Your task to perform on an android device: Empty the shopping cart on ebay.com. Add "razer huntsman" to the cart on ebay.com, then select checkout. Image 0: 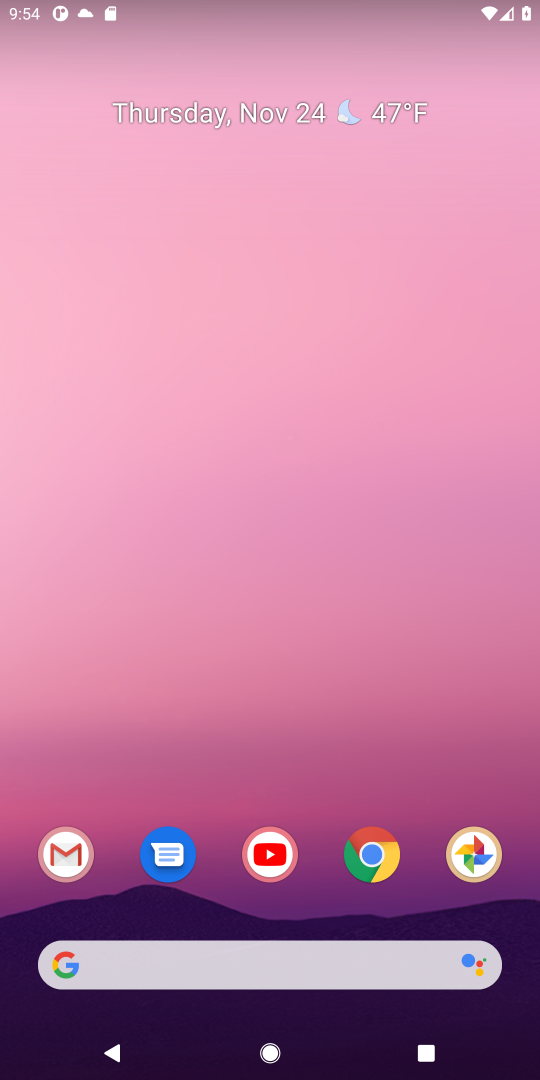
Step 0: click (378, 859)
Your task to perform on an android device: Empty the shopping cart on ebay.com. Add "razer huntsman" to the cart on ebay.com, then select checkout. Image 1: 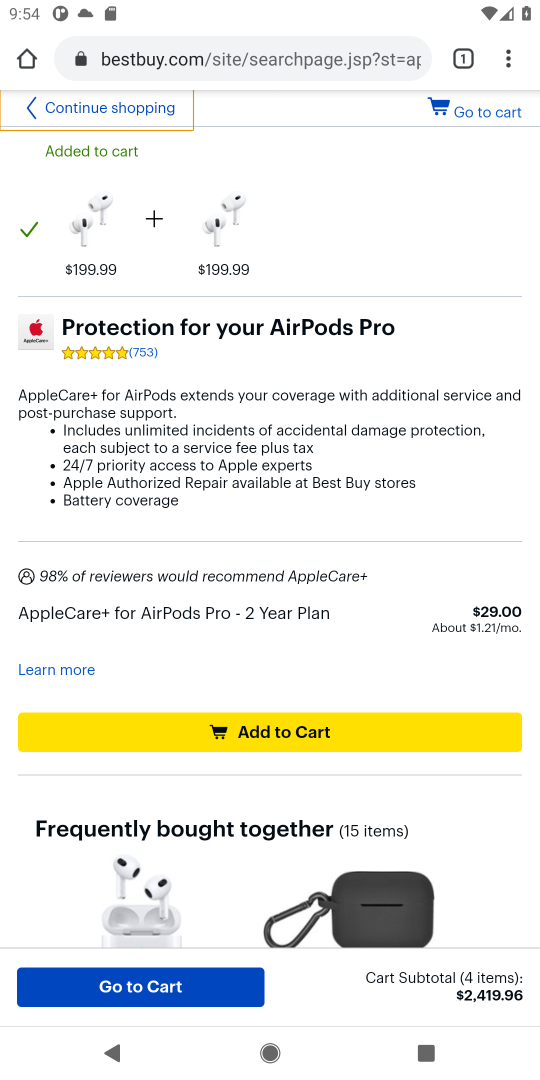
Step 1: click (196, 55)
Your task to perform on an android device: Empty the shopping cart on ebay.com. Add "razer huntsman" to the cart on ebay.com, then select checkout. Image 2: 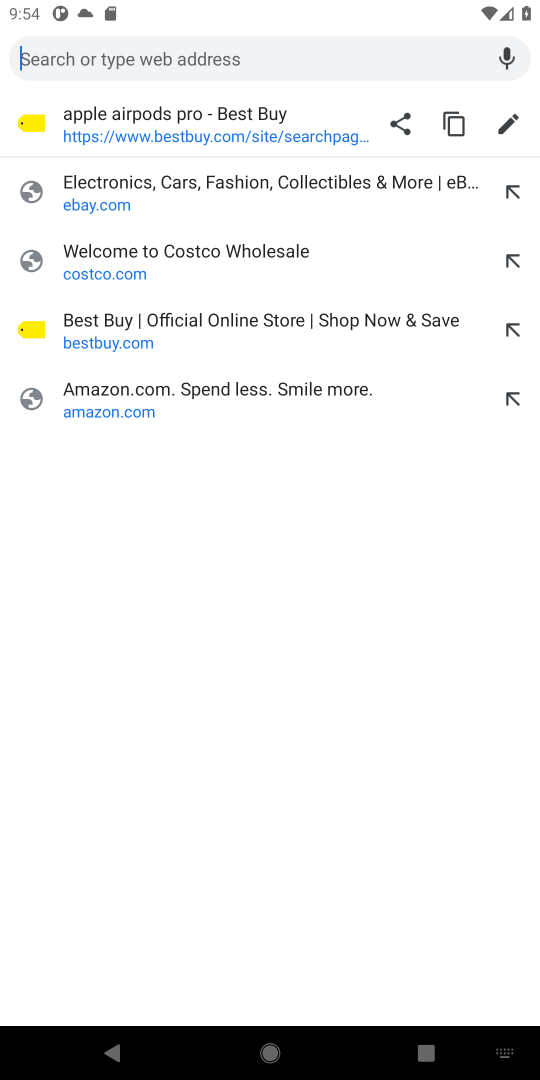
Step 2: click (89, 192)
Your task to perform on an android device: Empty the shopping cart on ebay.com. Add "razer huntsman" to the cart on ebay.com, then select checkout. Image 3: 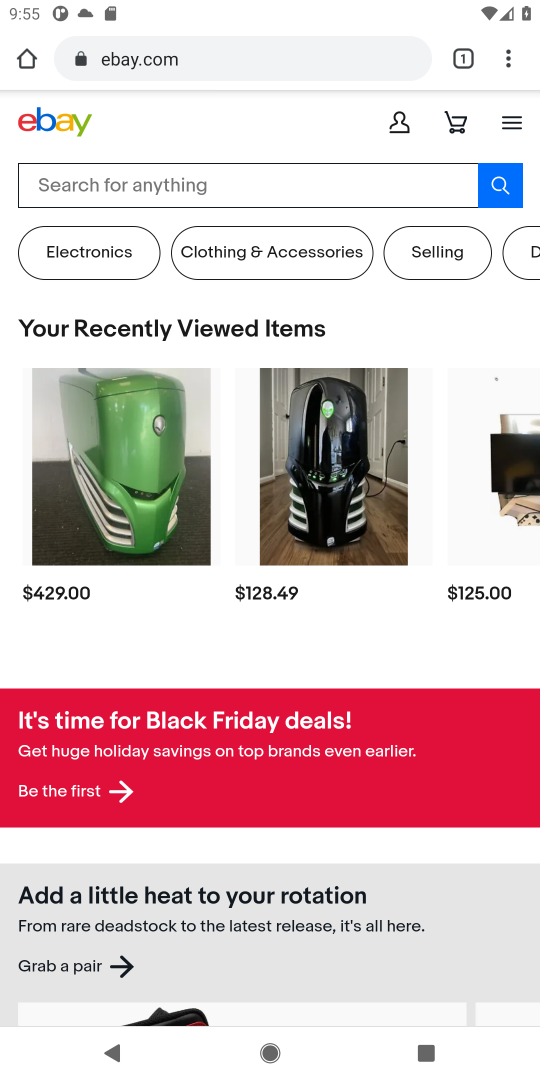
Step 3: click (456, 127)
Your task to perform on an android device: Empty the shopping cart on ebay.com. Add "razer huntsman" to the cart on ebay.com, then select checkout. Image 4: 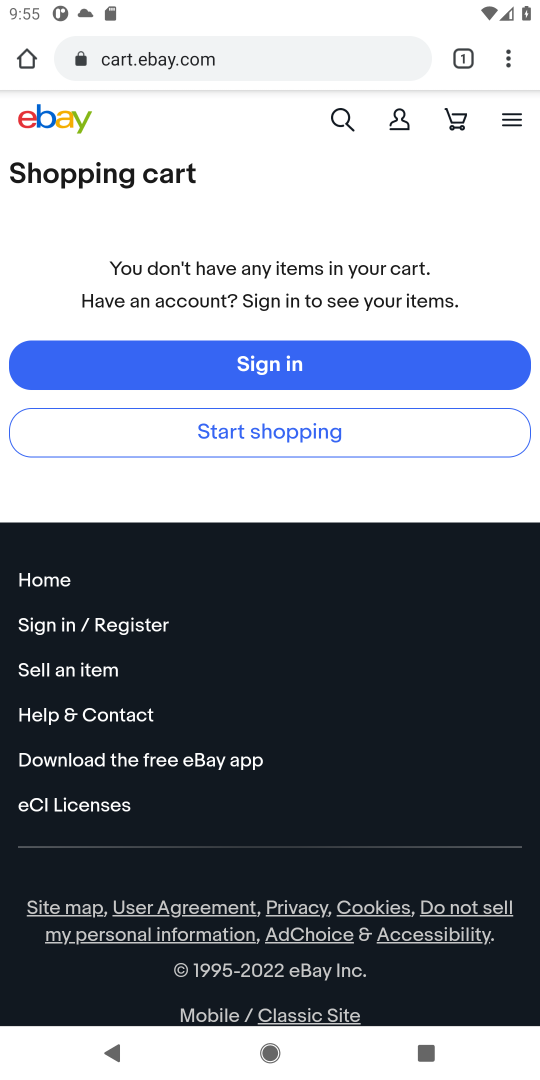
Step 4: click (341, 121)
Your task to perform on an android device: Empty the shopping cart on ebay.com. Add "razer huntsman" to the cart on ebay.com, then select checkout. Image 5: 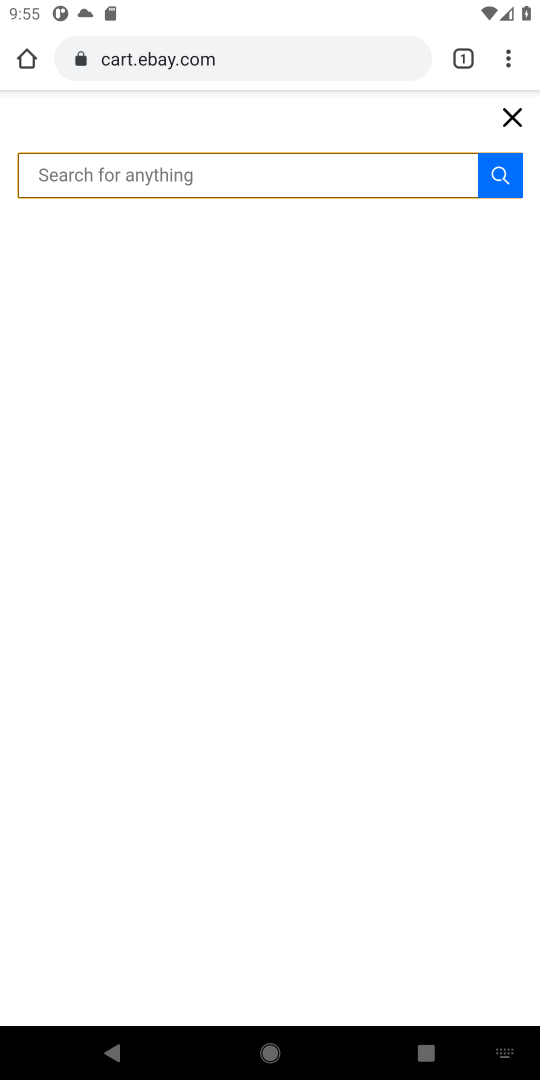
Step 5: type "razer huntsman"
Your task to perform on an android device: Empty the shopping cart on ebay.com. Add "razer huntsman" to the cart on ebay.com, then select checkout. Image 6: 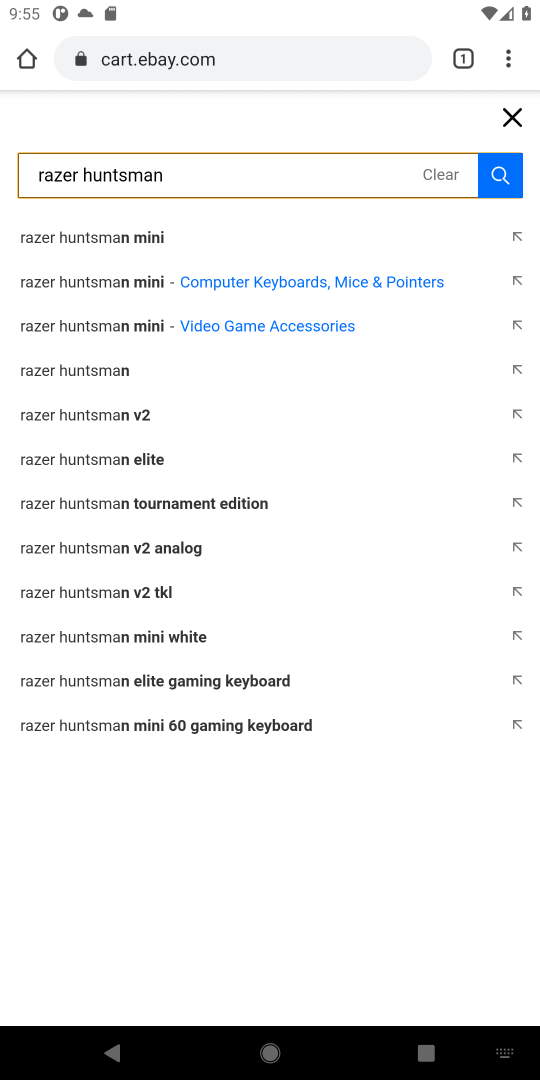
Step 6: click (492, 179)
Your task to perform on an android device: Empty the shopping cart on ebay.com. Add "razer huntsman" to the cart on ebay.com, then select checkout. Image 7: 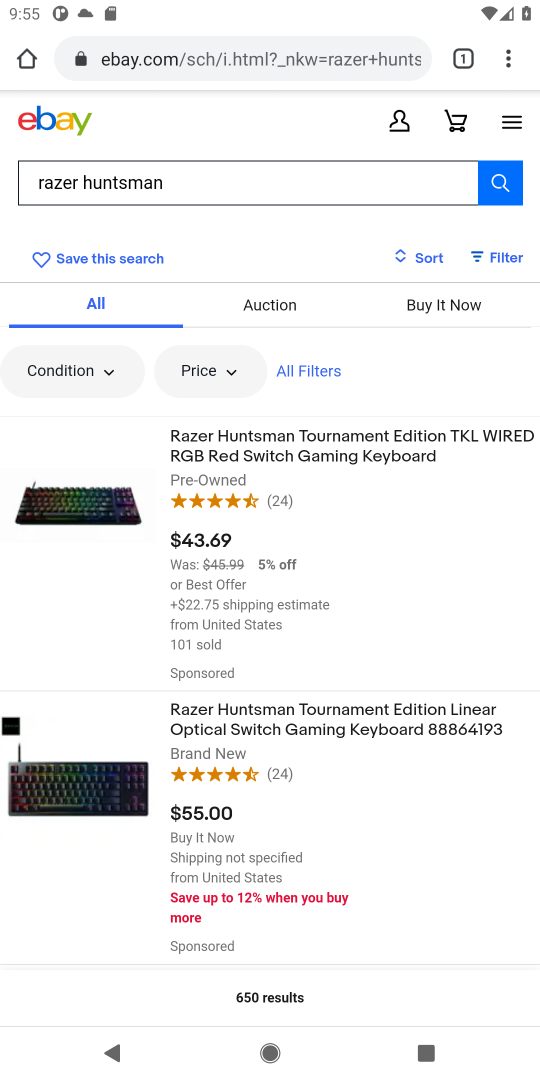
Step 7: click (68, 512)
Your task to perform on an android device: Empty the shopping cart on ebay.com. Add "razer huntsman" to the cart on ebay.com, then select checkout. Image 8: 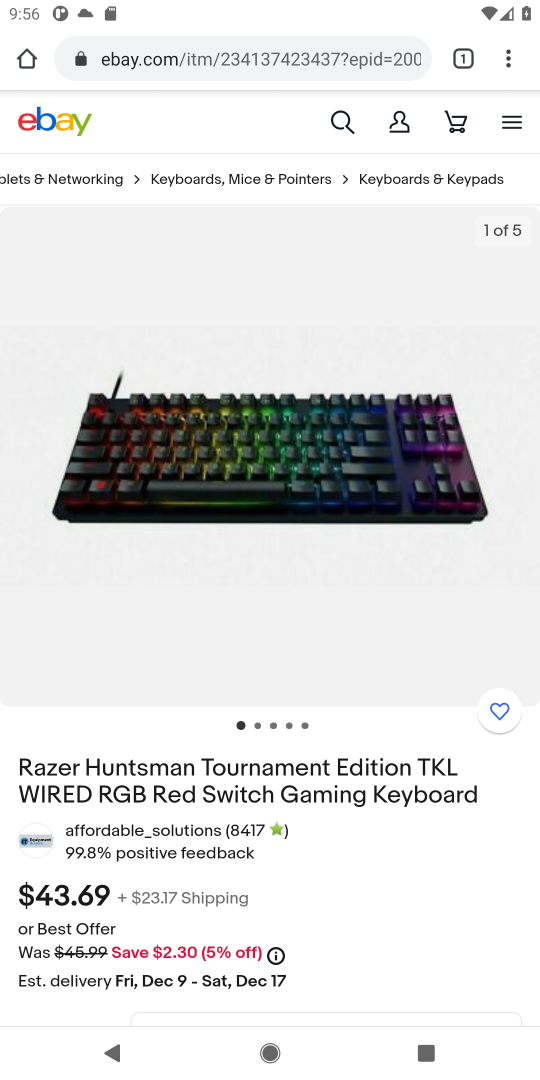
Step 8: drag from (178, 765) to (178, 503)
Your task to perform on an android device: Empty the shopping cart on ebay.com. Add "razer huntsman" to the cart on ebay.com, then select checkout. Image 9: 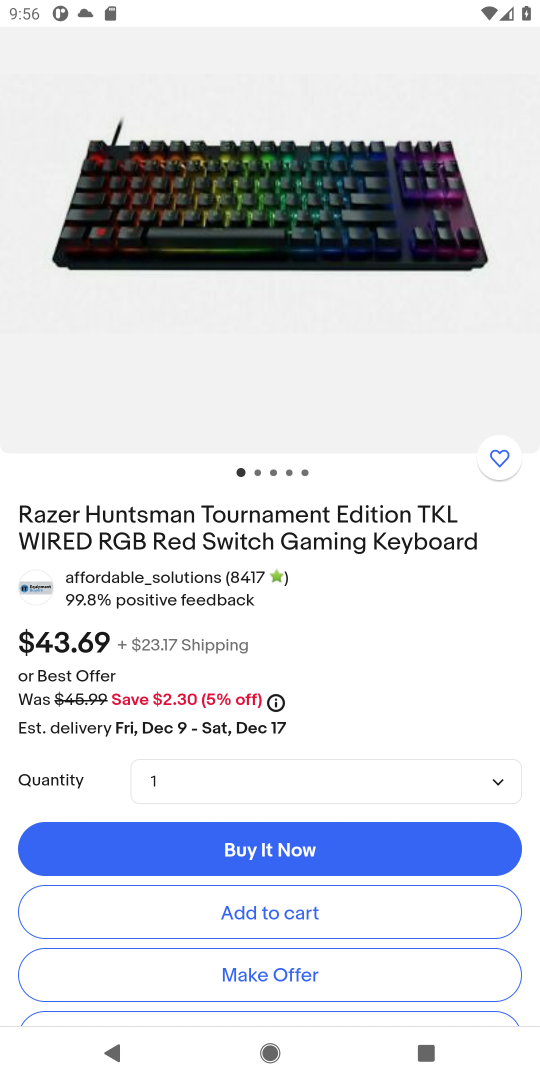
Step 9: click (251, 907)
Your task to perform on an android device: Empty the shopping cart on ebay.com. Add "razer huntsman" to the cart on ebay.com, then select checkout. Image 10: 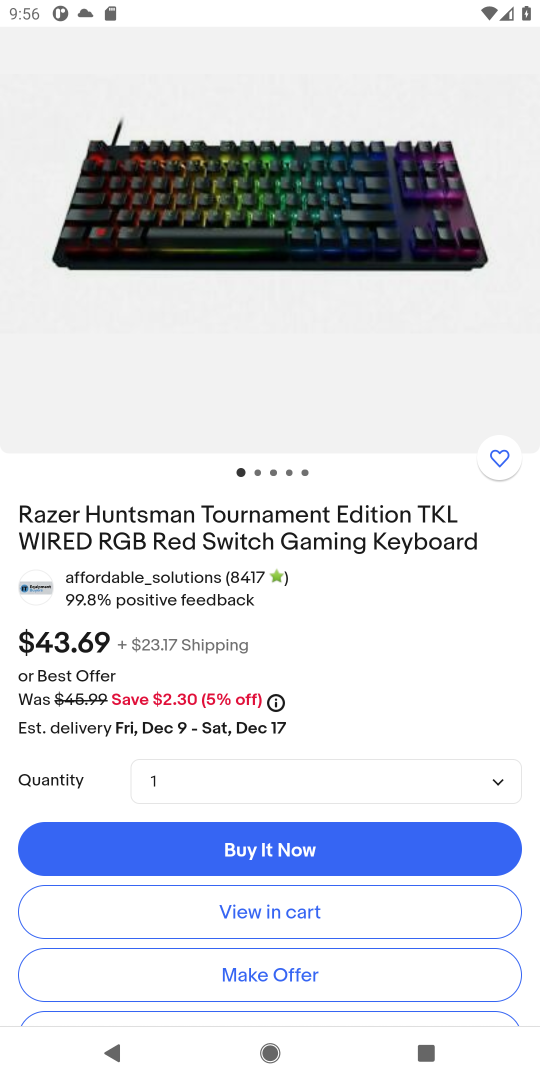
Step 10: click (251, 907)
Your task to perform on an android device: Empty the shopping cart on ebay.com. Add "razer huntsman" to the cart on ebay.com, then select checkout. Image 11: 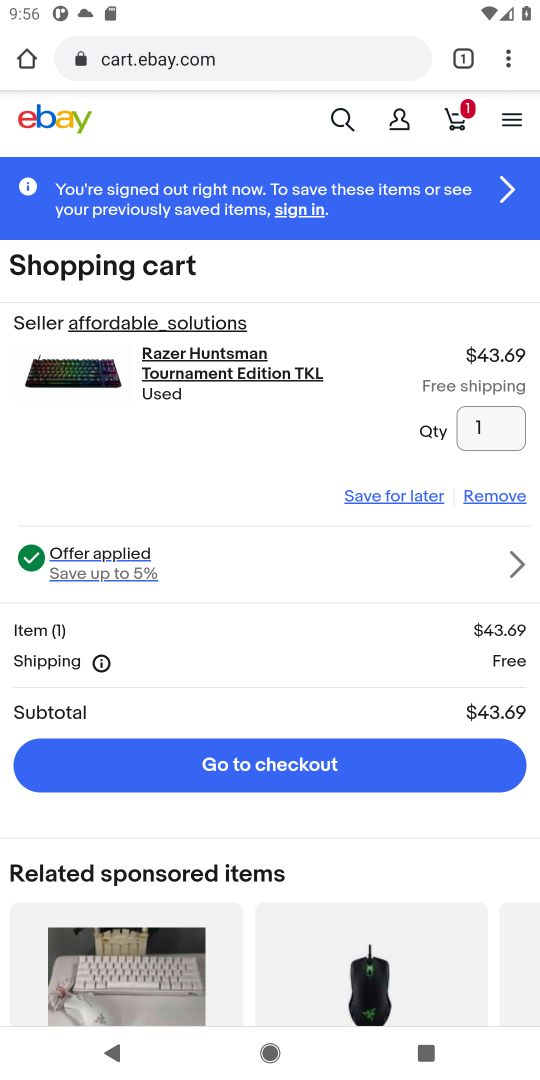
Step 11: click (236, 764)
Your task to perform on an android device: Empty the shopping cart on ebay.com. Add "razer huntsman" to the cart on ebay.com, then select checkout. Image 12: 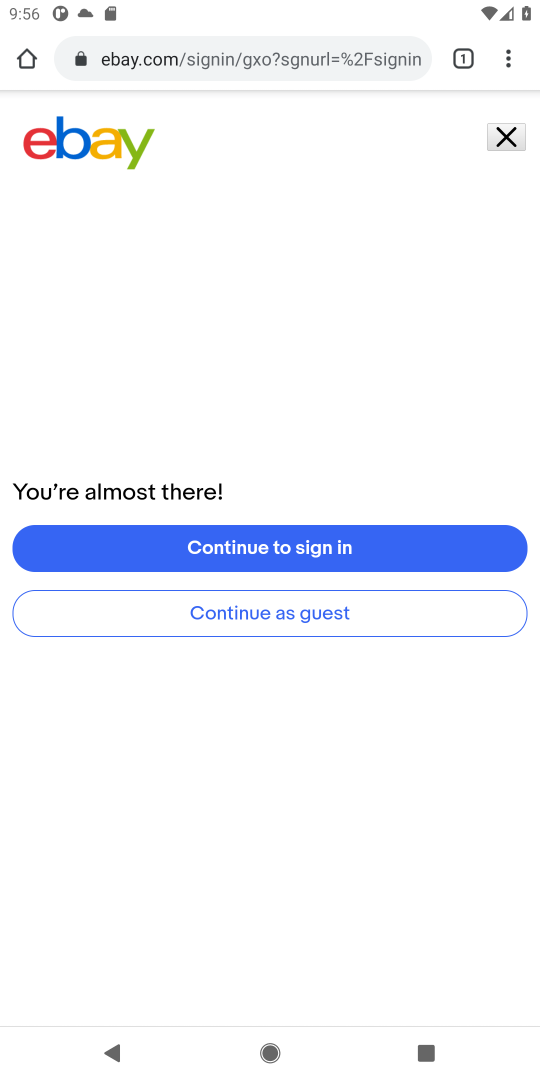
Step 12: task complete